Your task to perform on an android device: toggle wifi Image 0: 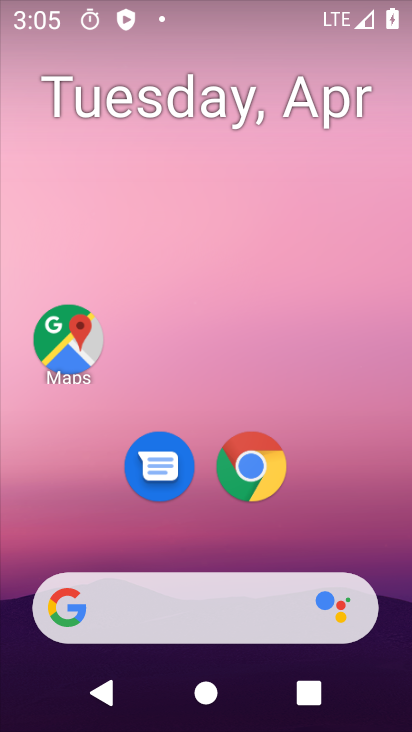
Step 0: drag from (190, 528) to (184, 38)
Your task to perform on an android device: toggle wifi Image 1: 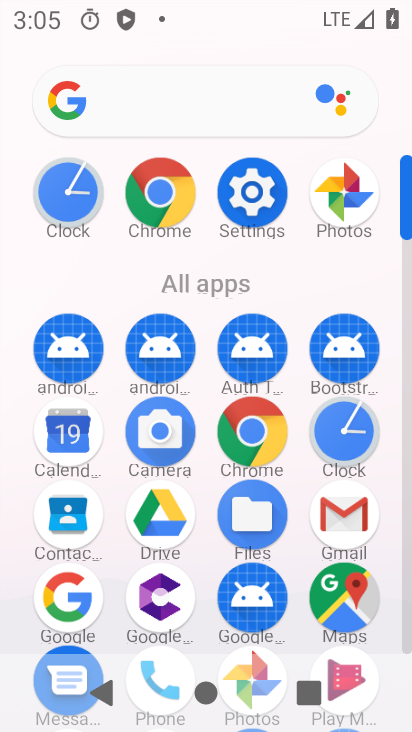
Step 1: click (232, 208)
Your task to perform on an android device: toggle wifi Image 2: 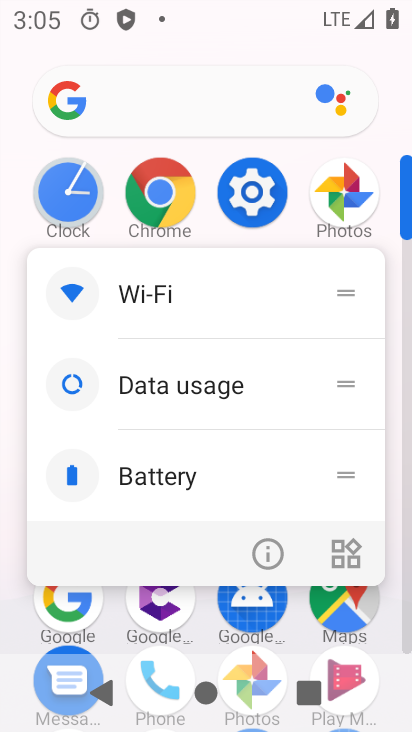
Step 2: click (234, 204)
Your task to perform on an android device: toggle wifi Image 3: 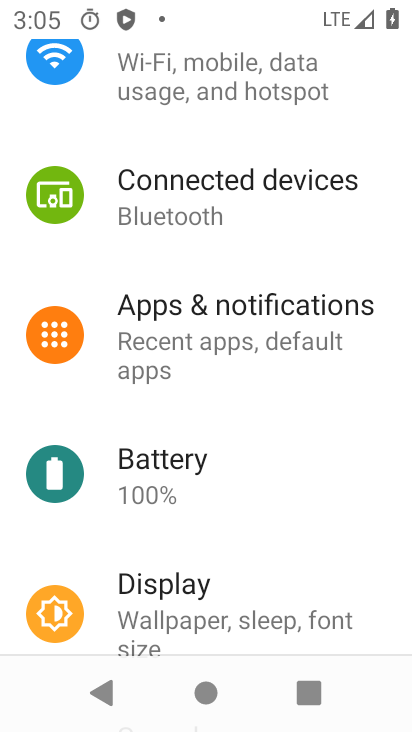
Step 3: drag from (218, 210) to (208, 556)
Your task to perform on an android device: toggle wifi Image 4: 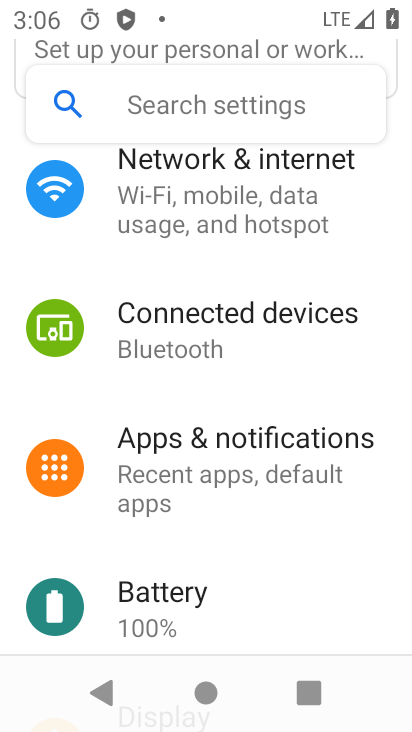
Step 4: click (187, 190)
Your task to perform on an android device: toggle wifi Image 5: 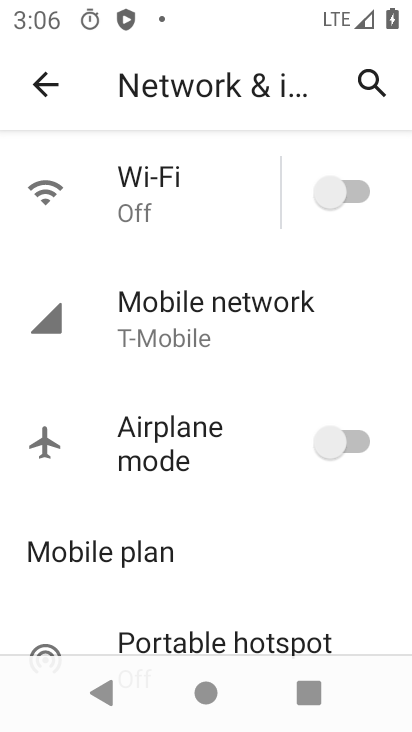
Step 5: click (168, 198)
Your task to perform on an android device: toggle wifi Image 6: 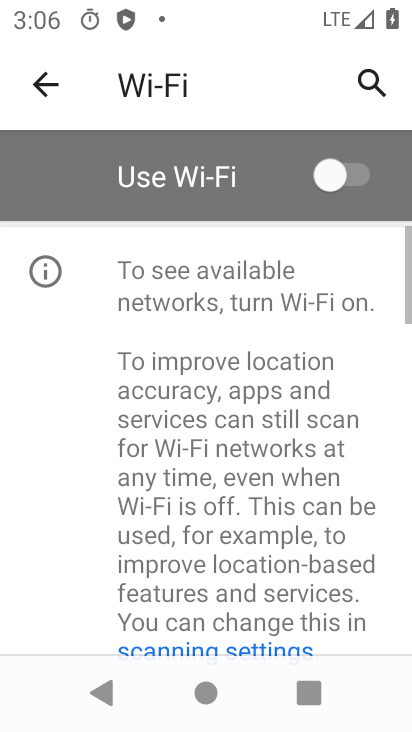
Step 6: click (332, 178)
Your task to perform on an android device: toggle wifi Image 7: 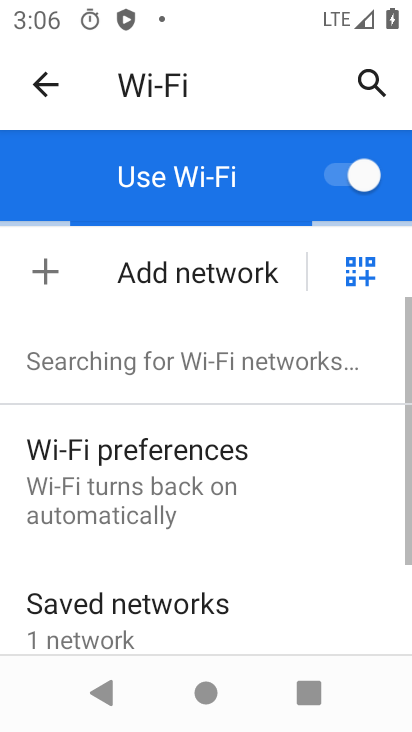
Step 7: task complete